Your task to perform on an android device: Clear the cart on target.com. Add "usb-c to usb-a" to the cart on target.com Image 0: 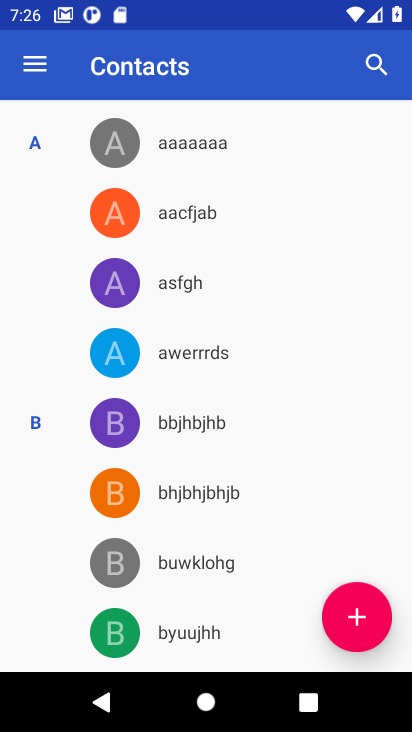
Step 0: press home button
Your task to perform on an android device: Clear the cart on target.com. Add "usb-c to usb-a" to the cart on target.com Image 1: 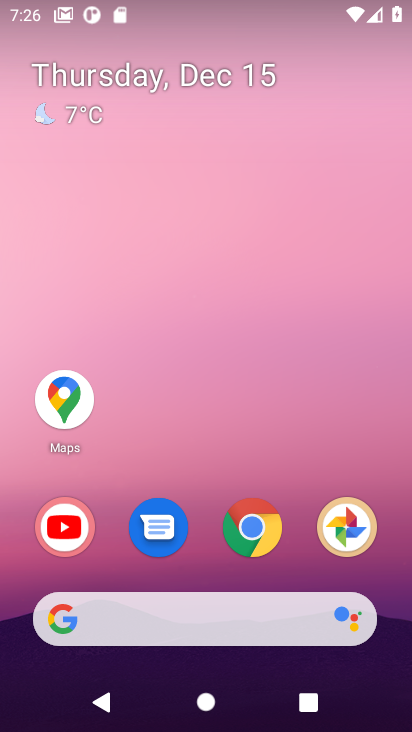
Step 1: click (215, 617)
Your task to perform on an android device: Clear the cart on target.com. Add "usb-c to usb-a" to the cart on target.com Image 2: 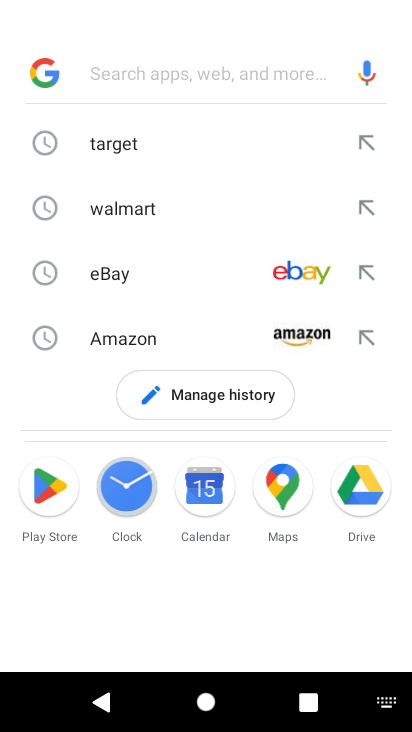
Step 2: click (170, 210)
Your task to perform on an android device: Clear the cart on target.com. Add "usb-c to usb-a" to the cart on target.com Image 3: 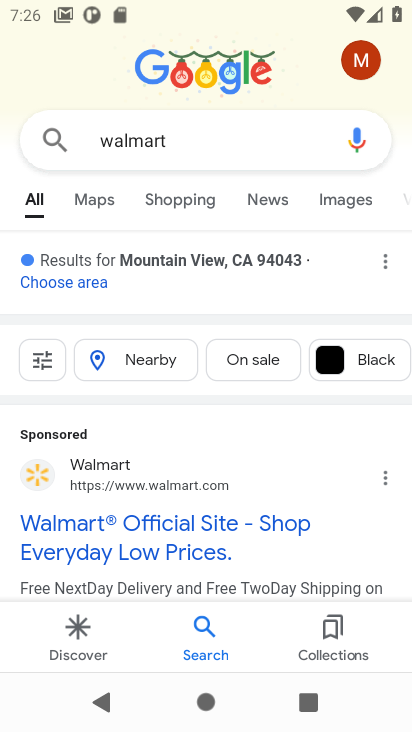
Step 3: click (89, 547)
Your task to perform on an android device: Clear the cart on target.com. Add "usb-c to usb-a" to the cart on target.com Image 4: 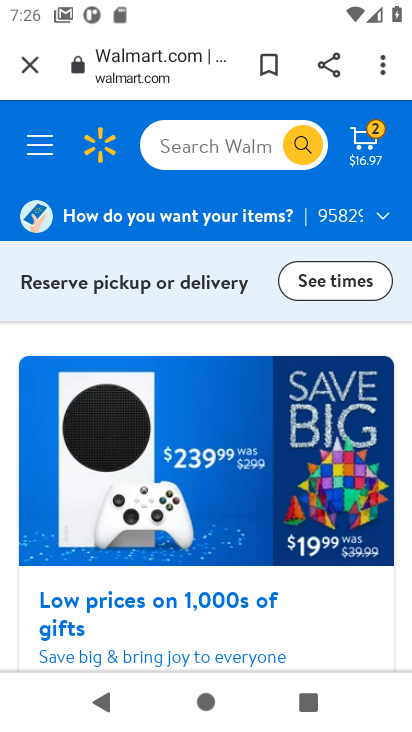
Step 4: click (214, 141)
Your task to perform on an android device: Clear the cart on target.com. Add "usb-c to usb-a" to the cart on target.com Image 5: 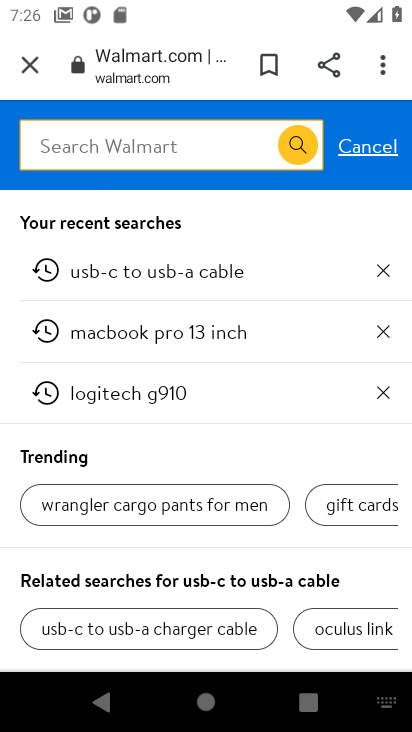
Step 5: click (45, 67)
Your task to perform on an android device: Clear the cart on target.com. Add "usb-c to usb-a" to the cart on target.com Image 6: 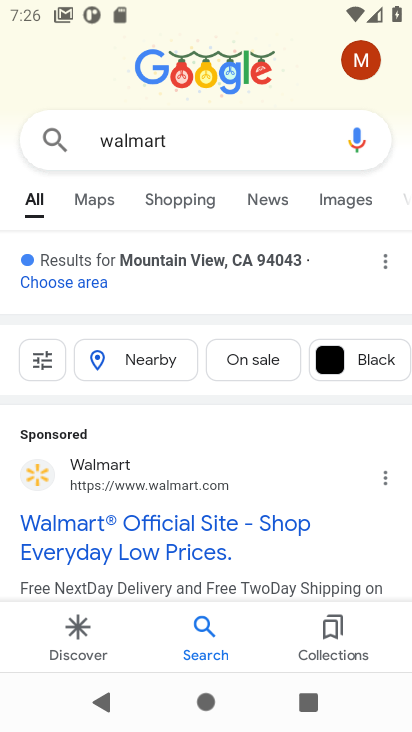
Step 6: click (170, 138)
Your task to perform on an android device: Clear the cart on target.com. Add "usb-c to usb-a" to the cart on target.com Image 7: 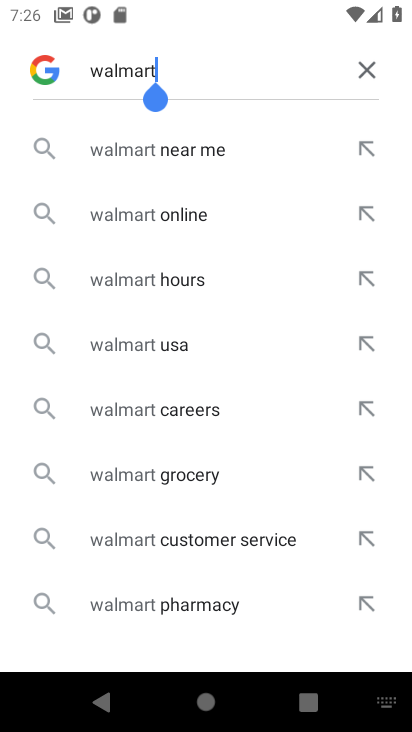
Step 7: click (357, 73)
Your task to perform on an android device: Clear the cart on target.com. Add "usb-c to usb-a" to the cart on target.com Image 8: 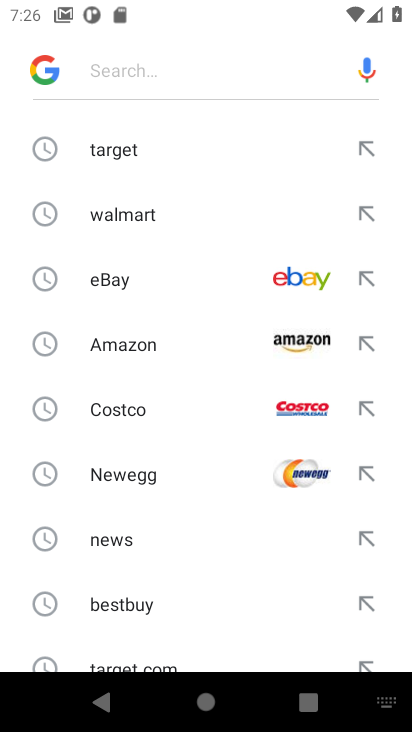
Step 8: type "target"
Your task to perform on an android device: Clear the cart on target.com. Add "usb-c to usb-a" to the cart on target.com Image 9: 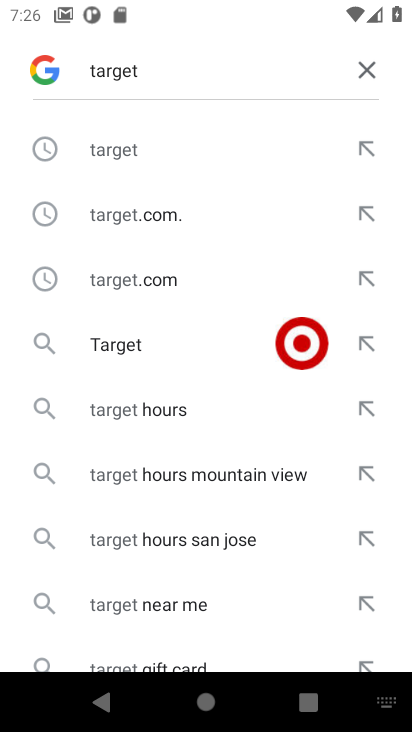
Step 9: click (158, 334)
Your task to perform on an android device: Clear the cart on target.com. Add "usb-c to usb-a" to the cart on target.com Image 10: 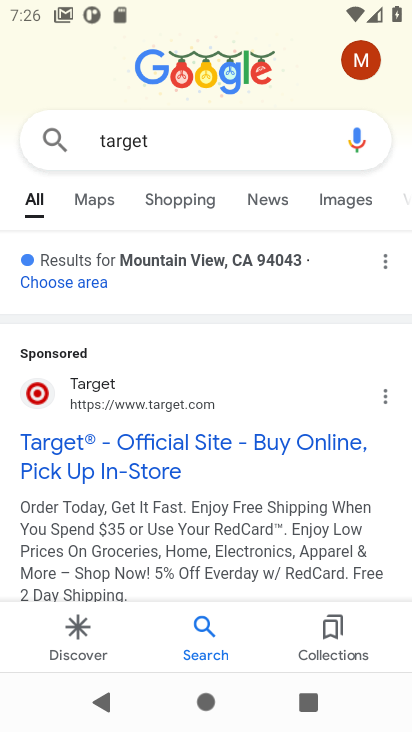
Step 10: click (219, 463)
Your task to perform on an android device: Clear the cart on target.com. Add "usb-c to usb-a" to the cart on target.com Image 11: 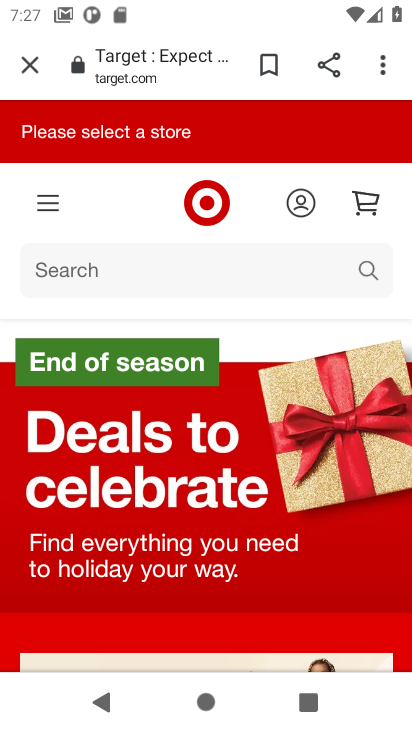
Step 11: click (128, 276)
Your task to perform on an android device: Clear the cart on target.com. Add "usb-c to usb-a" to the cart on target.com Image 12: 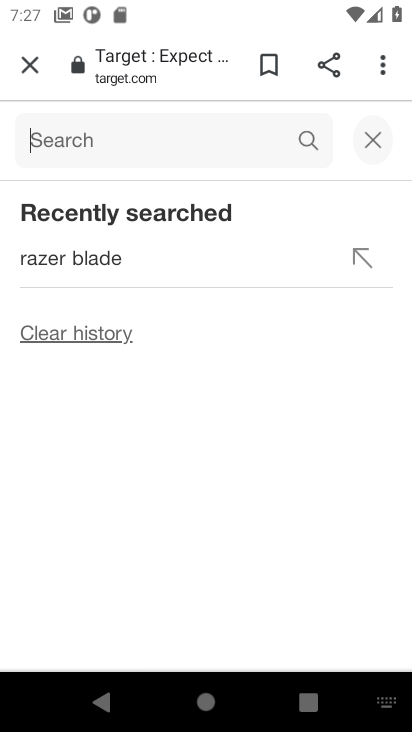
Step 12: type "usb-c to usb-a"
Your task to perform on an android device: Clear the cart on target.com. Add "usb-c to usb-a" to the cart on target.com Image 13: 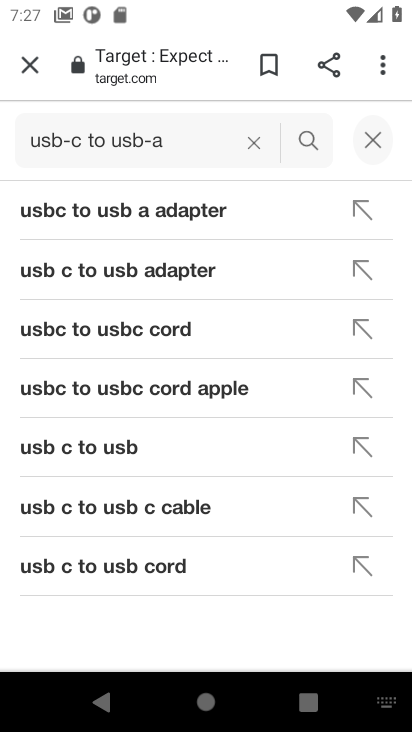
Step 13: click (309, 138)
Your task to perform on an android device: Clear the cart on target.com. Add "usb-c to usb-a" to the cart on target.com Image 14: 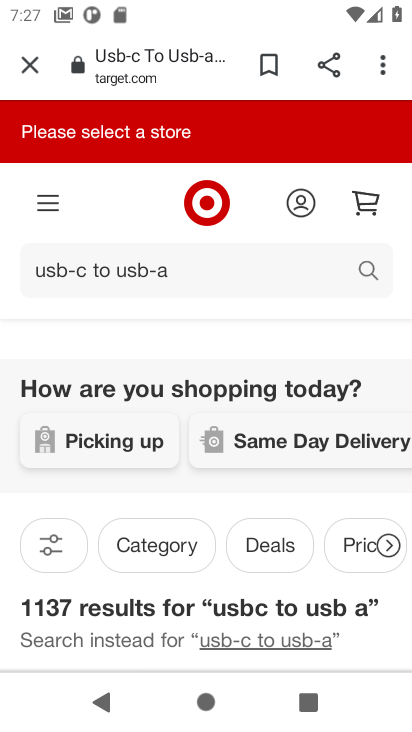
Step 14: drag from (230, 589) to (236, 161)
Your task to perform on an android device: Clear the cart on target.com. Add "usb-c to usb-a" to the cart on target.com Image 15: 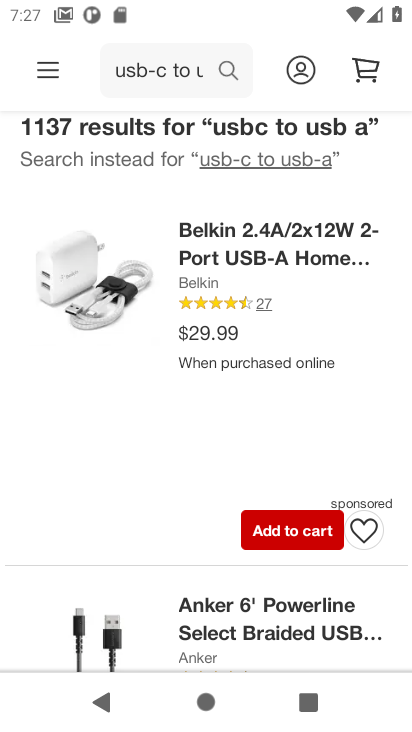
Step 15: click (284, 531)
Your task to perform on an android device: Clear the cart on target.com. Add "usb-c to usb-a" to the cart on target.com Image 16: 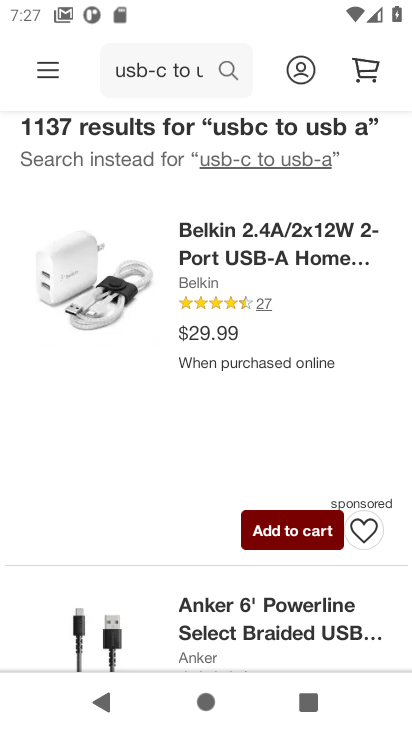
Step 16: task complete